Your task to perform on an android device: open a bookmark in the chrome app Image 0: 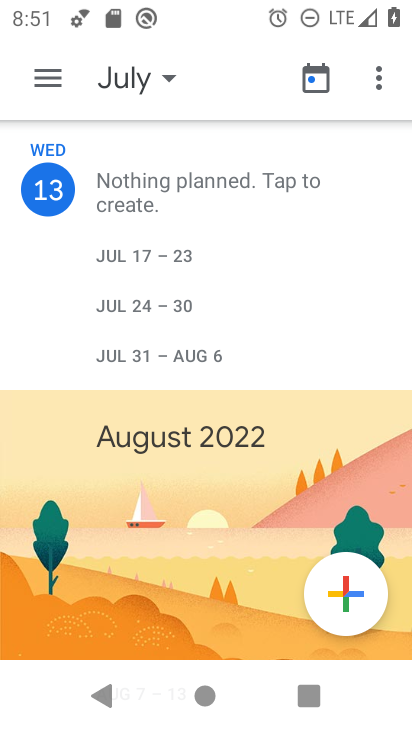
Step 0: press home button
Your task to perform on an android device: open a bookmark in the chrome app Image 1: 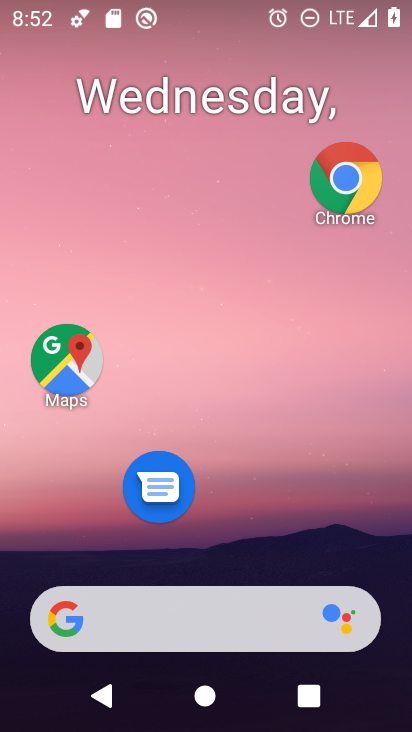
Step 1: drag from (212, 653) to (235, 158)
Your task to perform on an android device: open a bookmark in the chrome app Image 2: 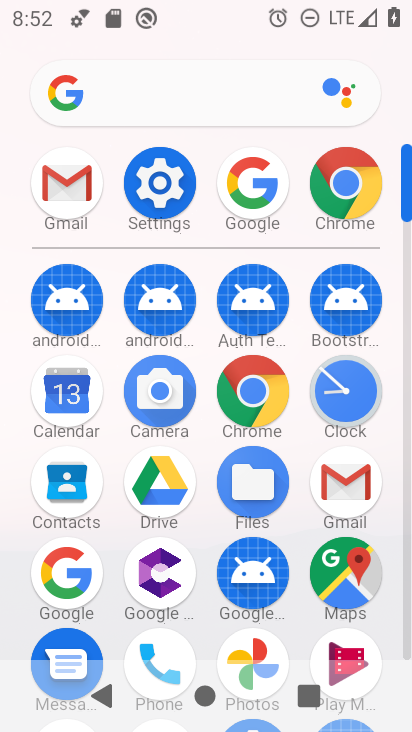
Step 2: click (360, 190)
Your task to perform on an android device: open a bookmark in the chrome app Image 3: 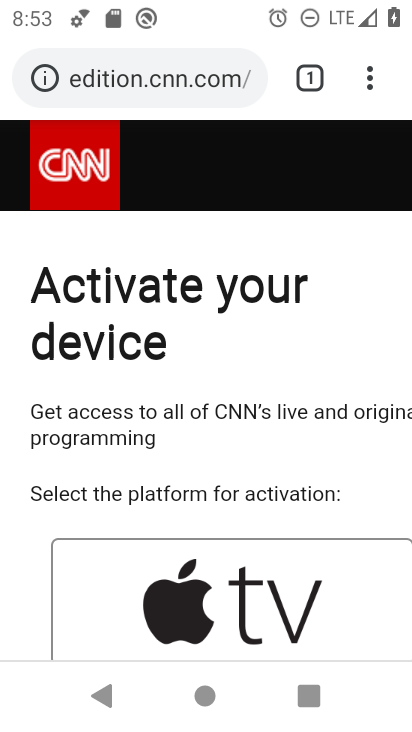
Step 3: click (365, 86)
Your task to perform on an android device: open a bookmark in the chrome app Image 4: 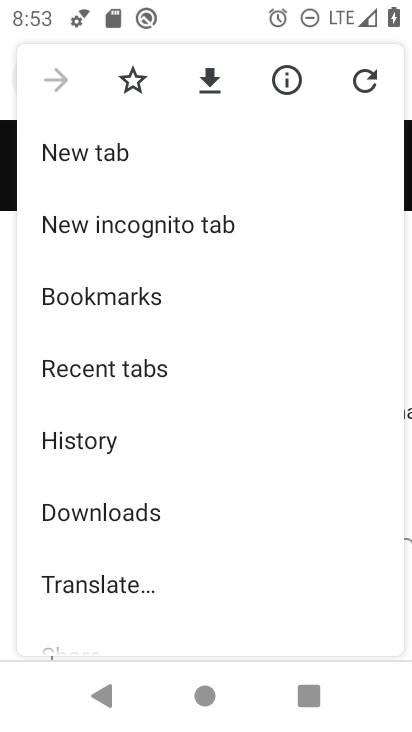
Step 4: drag from (108, 548) to (136, 397)
Your task to perform on an android device: open a bookmark in the chrome app Image 5: 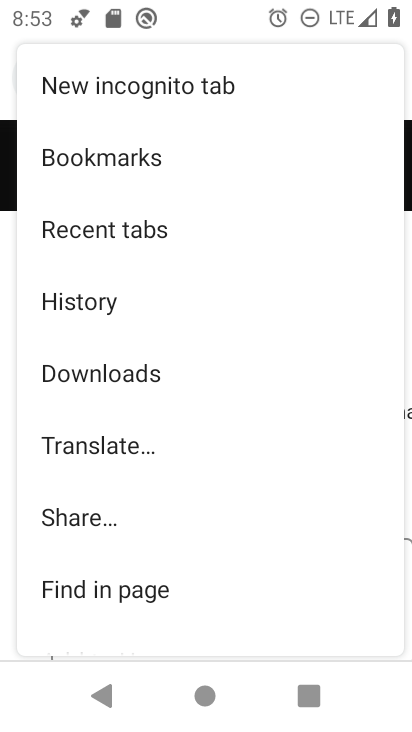
Step 5: click (161, 161)
Your task to perform on an android device: open a bookmark in the chrome app Image 6: 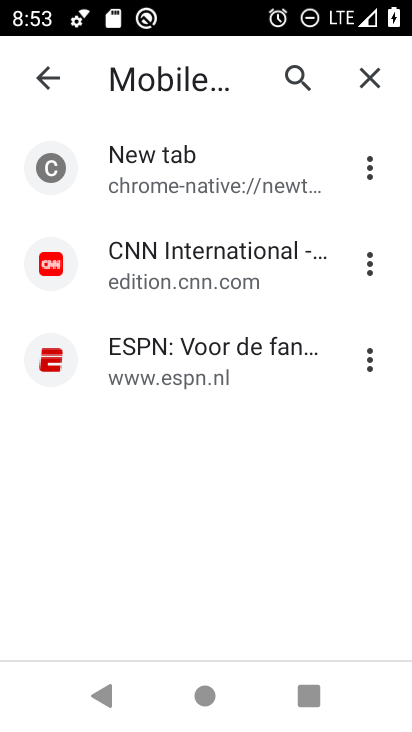
Step 6: click (237, 276)
Your task to perform on an android device: open a bookmark in the chrome app Image 7: 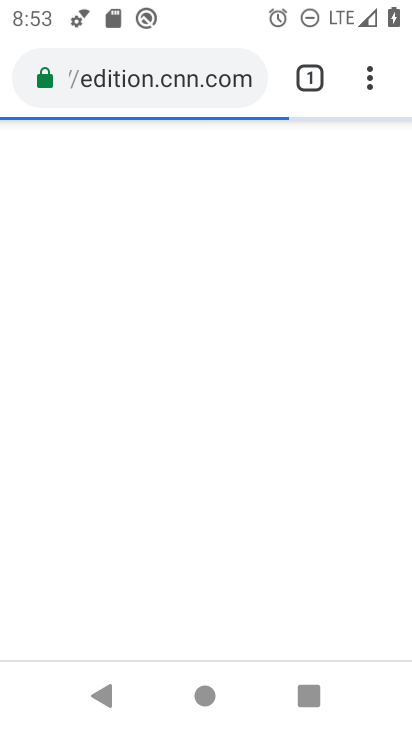
Step 7: task complete